Your task to perform on an android device: Open Yahoo.com Image 0: 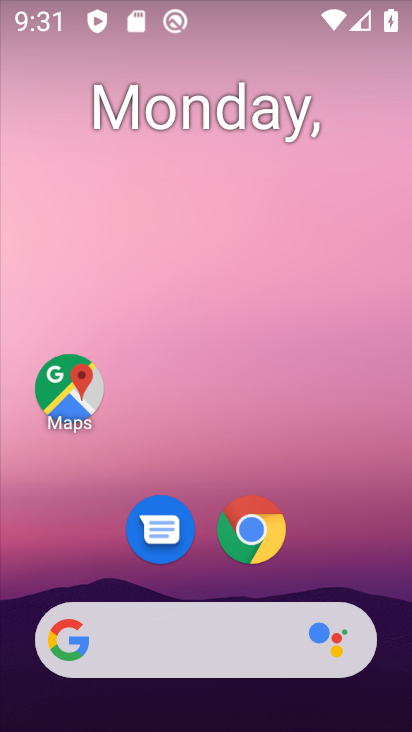
Step 0: click (248, 523)
Your task to perform on an android device: Open Yahoo.com Image 1: 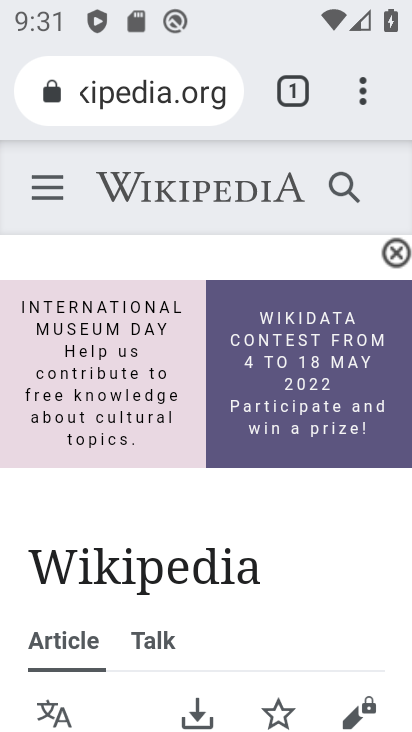
Step 1: press back button
Your task to perform on an android device: Open Yahoo.com Image 2: 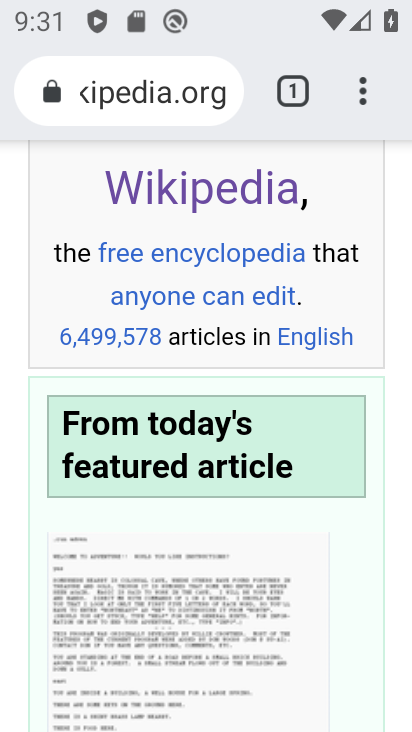
Step 2: press back button
Your task to perform on an android device: Open Yahoo.com Image 3: 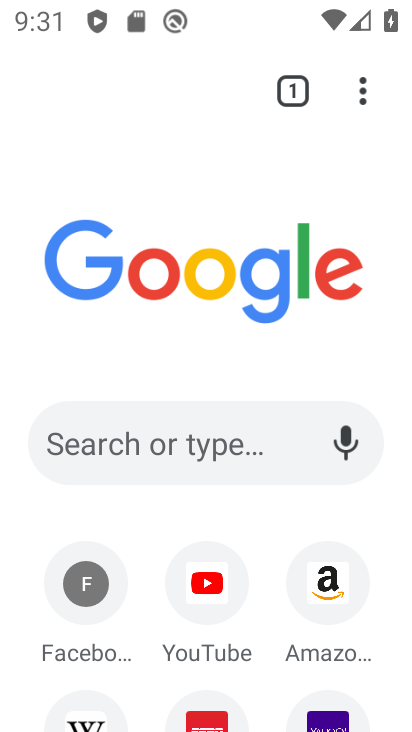
Step 3: drag from (294, 683) to (332, 353)
Your task to perform on an android device: Open Yahoo.com Image 4: 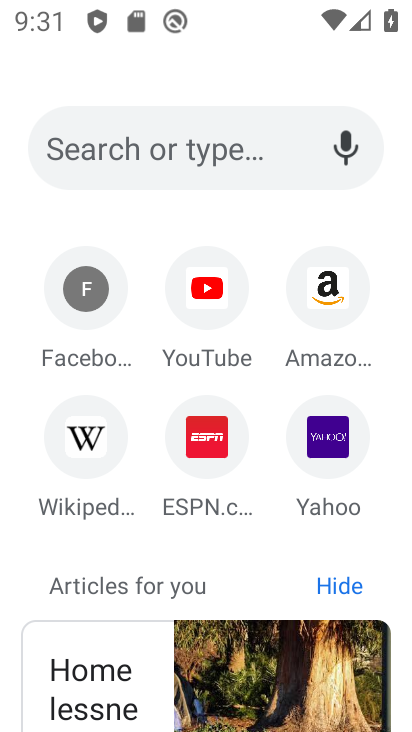
Step 4: click (323, 465)
Your task to perform on an android device: Open Yahoo.com Image 5: 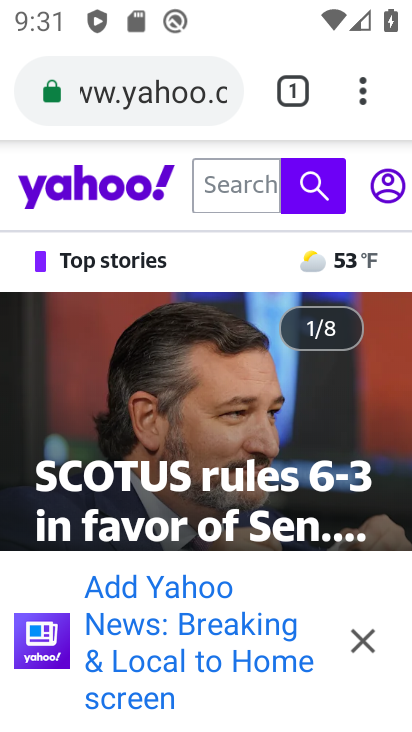
Step 5: task complete